Your task to perform on an android device: set the timer Image 0: 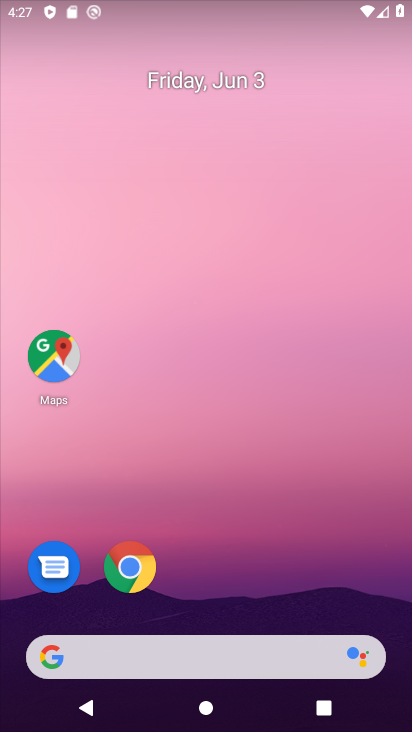
Step 0: drag from (258, 583) to (212, 11)
Your task to perform on an android device: set the timer Image 1: 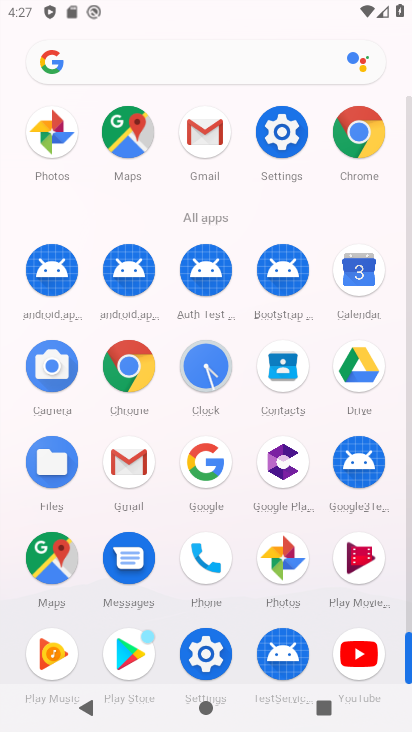
Step 1: click (207, 367)
Your task to perform on an android device: set the timer Image 2: 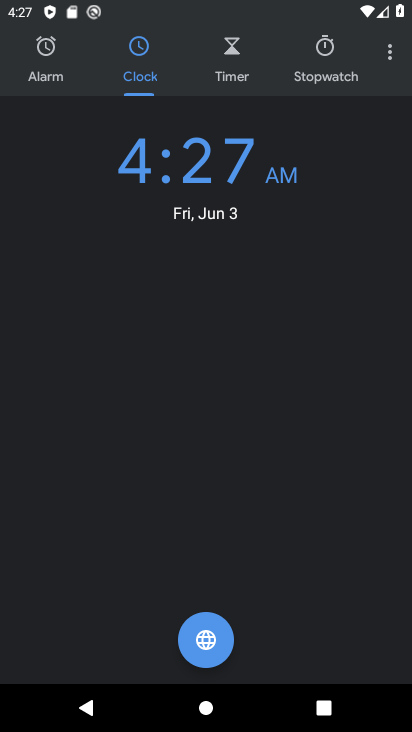
Step 2: click (234, 49)
Your task to perform on an android device: set the timer Image 3: 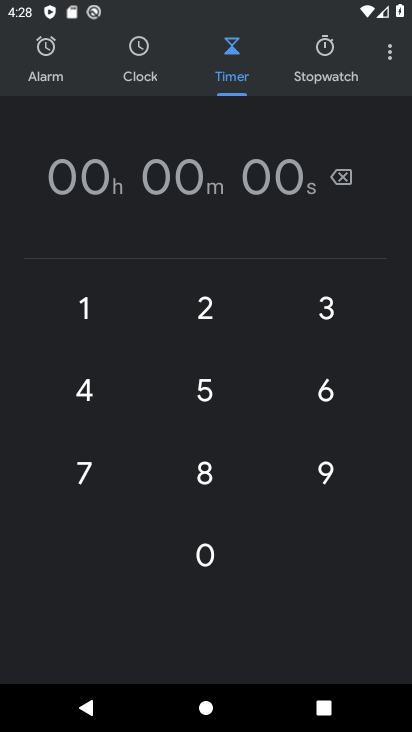
Step 3: type "1357"
Your task to perform on an android device: set the timer Image 4: 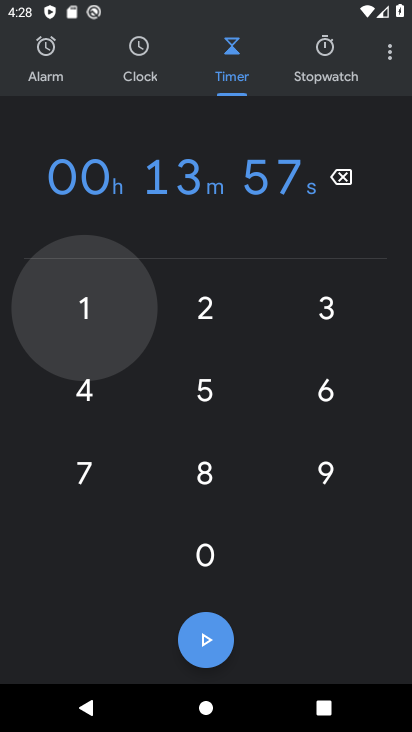
Step 4: click (206, 658)
Your task to perform on an android device: set the timer Image 5: 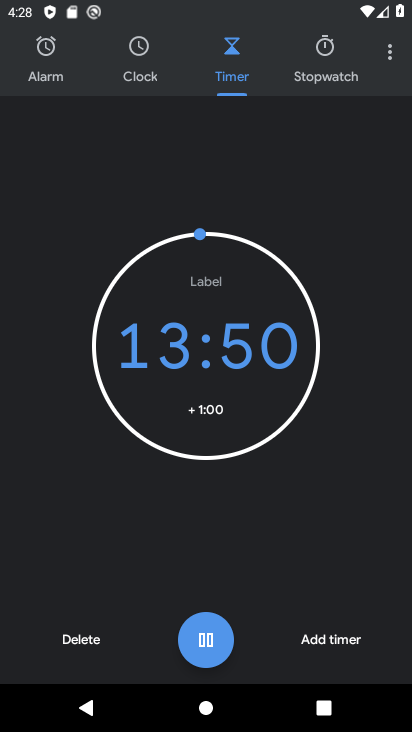
Step 5: click (205, 647)
Your task to perform on an android device: set the timer Image 6: 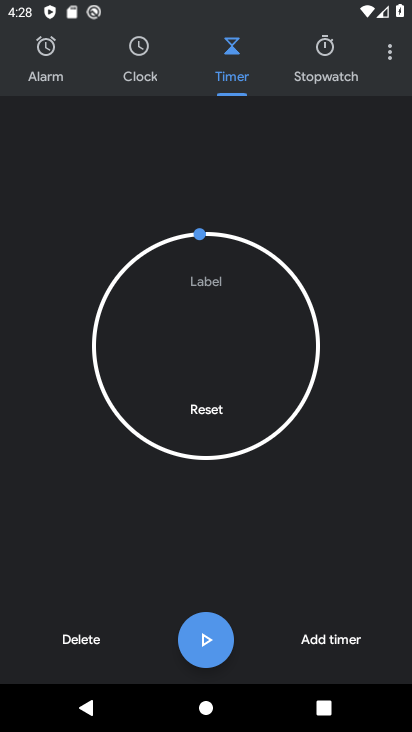
Step 6: task complete